Your task to perform on an android device: toggle improve location accuracy Image 0: 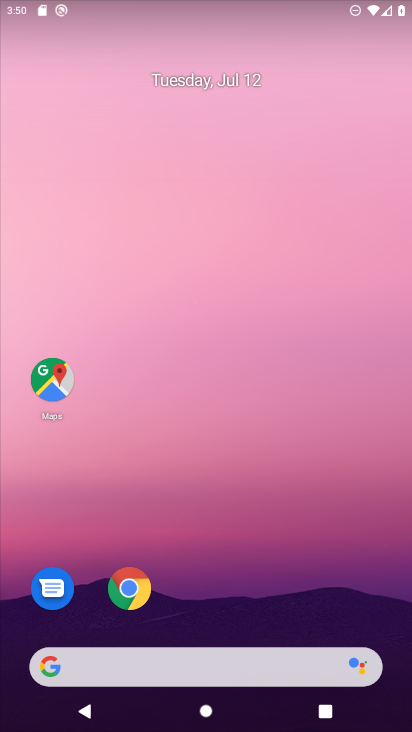
Step 0: drag from (295, 611) to (307, 18)
Your task to perform on an android device: toggle improve location accuracy Image 1: 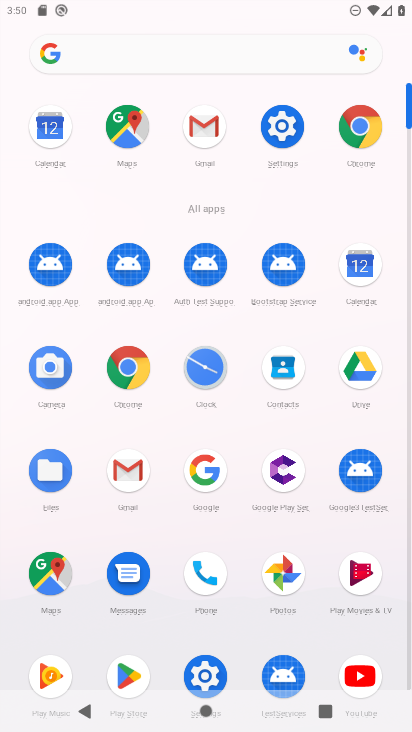
Step 1: click (287, 124)
Your task to perform on an android device: toggle improve location accuracy Image 2: 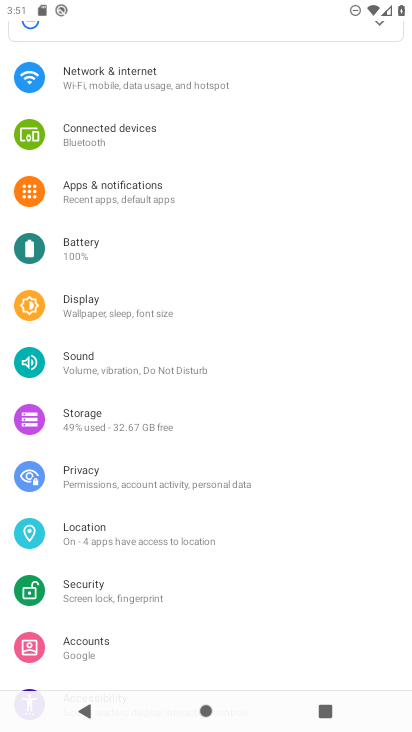
Step 2: click (180, 545)
Your task to perform on an android device: toggle improve location accuracy Image 3: 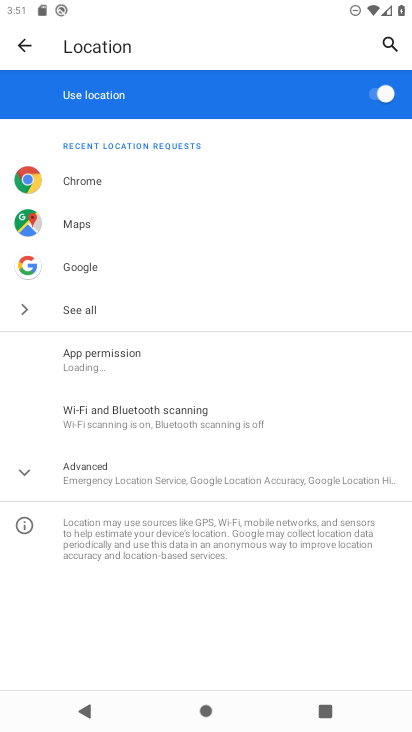
Step 3: click (210, 477)
Your task to perform on an android device: toggle improve location accuracy Image 4: 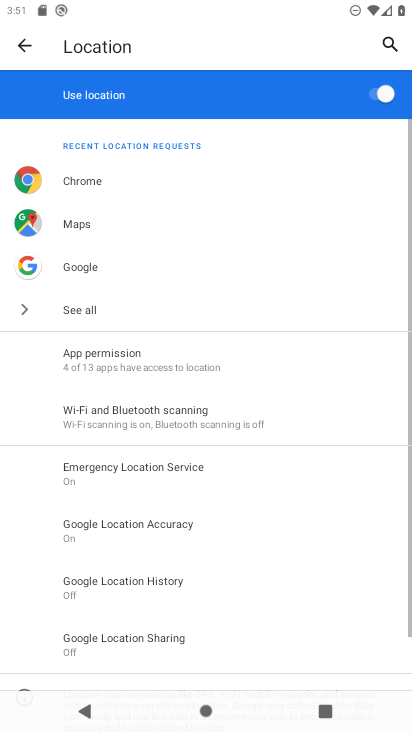
Step 4: click (249, 527)
Your task to perform on an android device: toggle improve location accuracy Image 5: 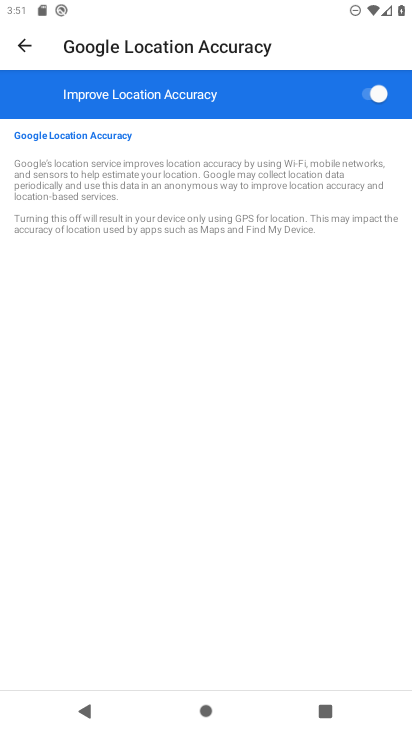
Step 5: click (379, 90)
Your task to perform on an android device: toggle improve location accuracy Image 6: 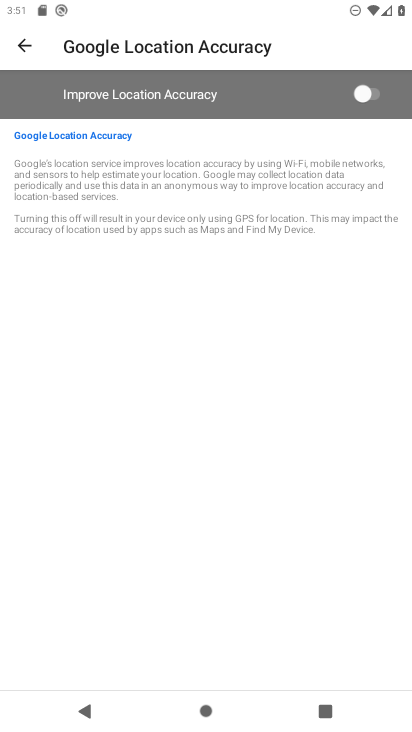
Step 6: task complete